Your task to perform on an android device: delete the emails in spam in the gmail app Image 0: 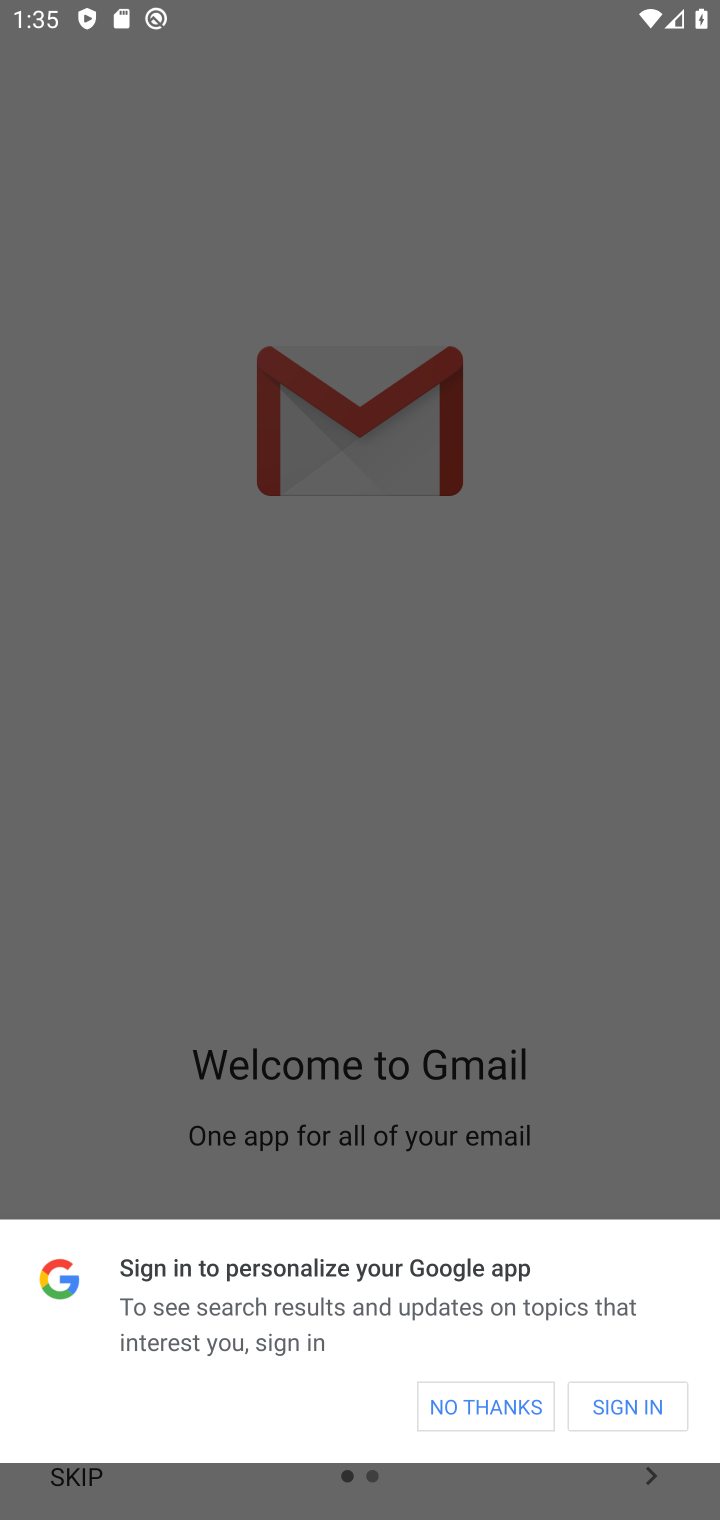
Step 0: click (519, 1400)
Your task to perform on an android device: delete the emails in spam in the gmail app Image 1: 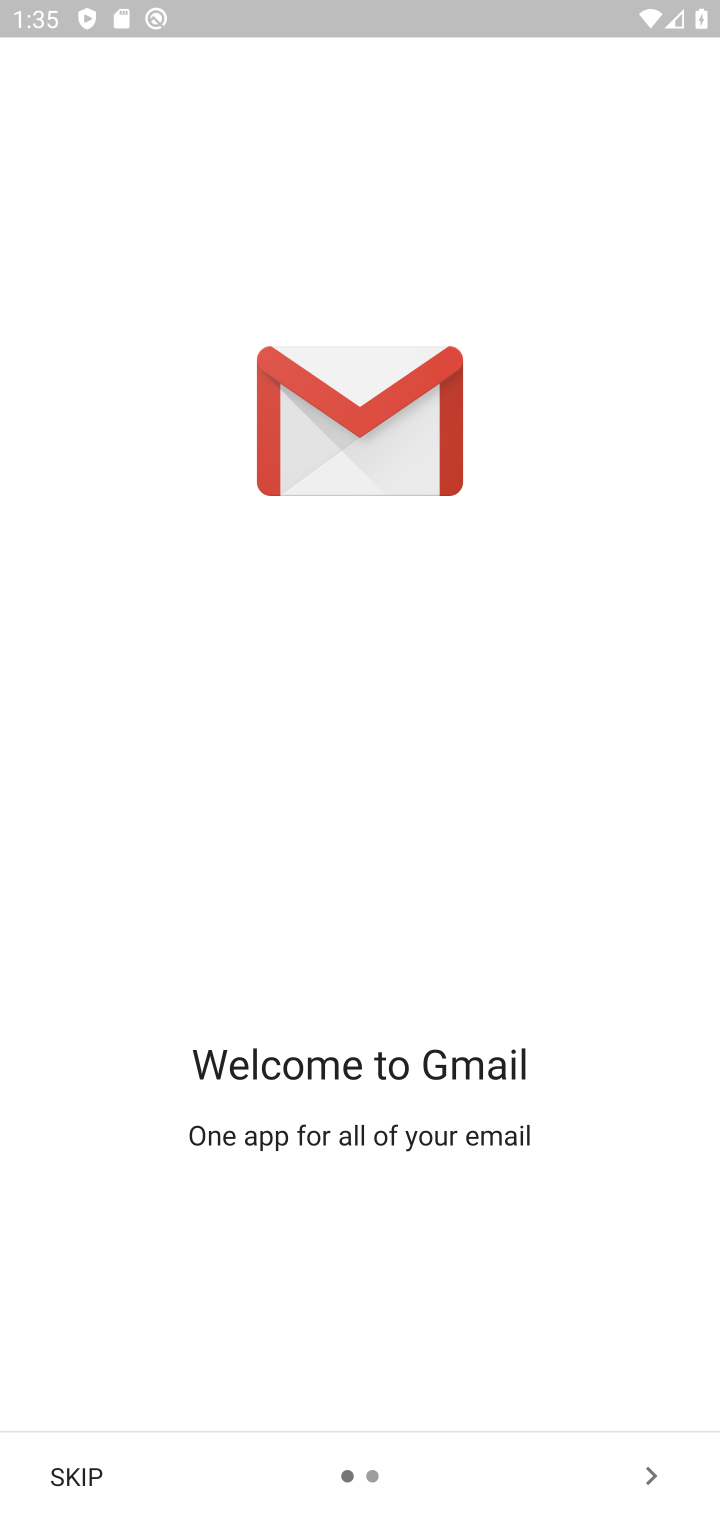
Step 1: click (85, 1490)
Your task to perform on an android device: delete the emails in spam in the gmail app Image 2: 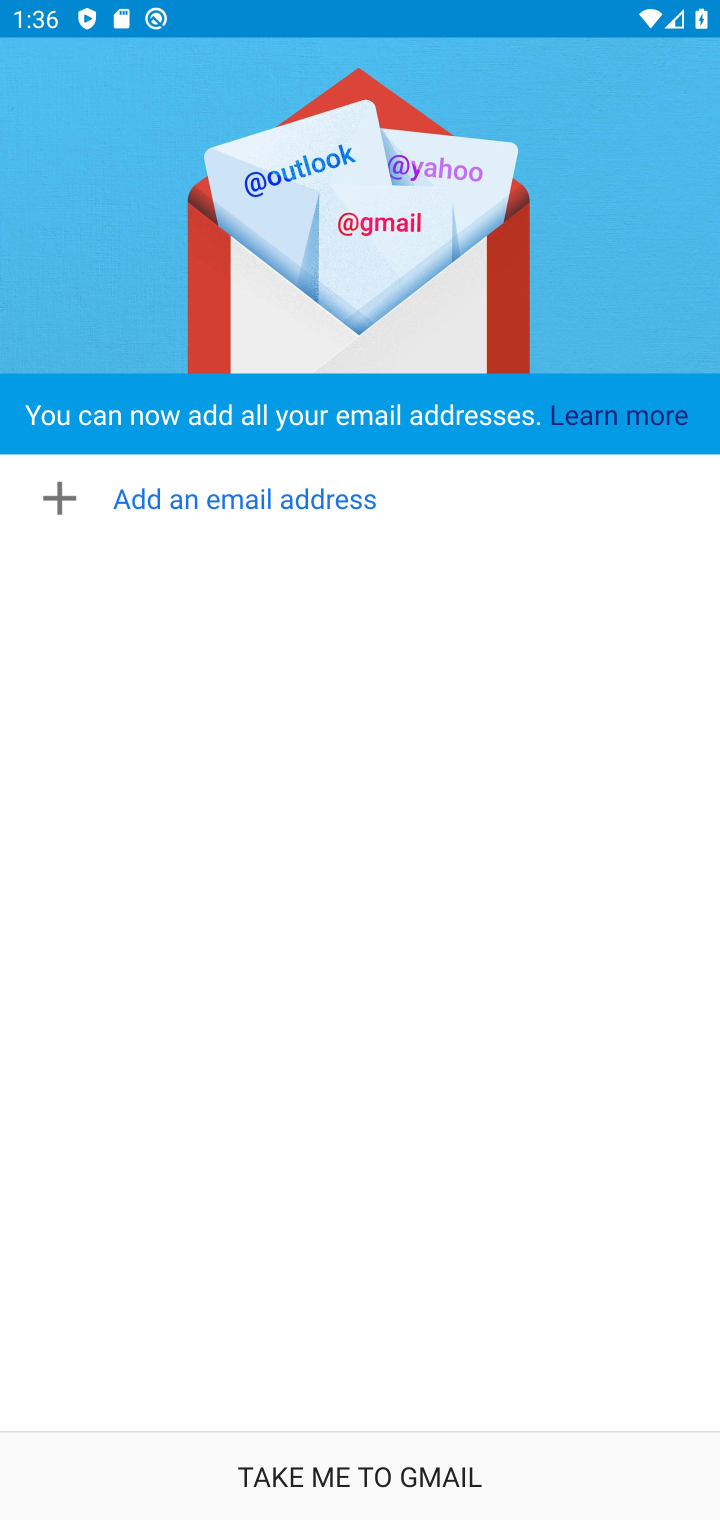
Step 2: click (478, 1464)
Your task to perform on an android device: delete the emails in spam in the gmail app Image 3: 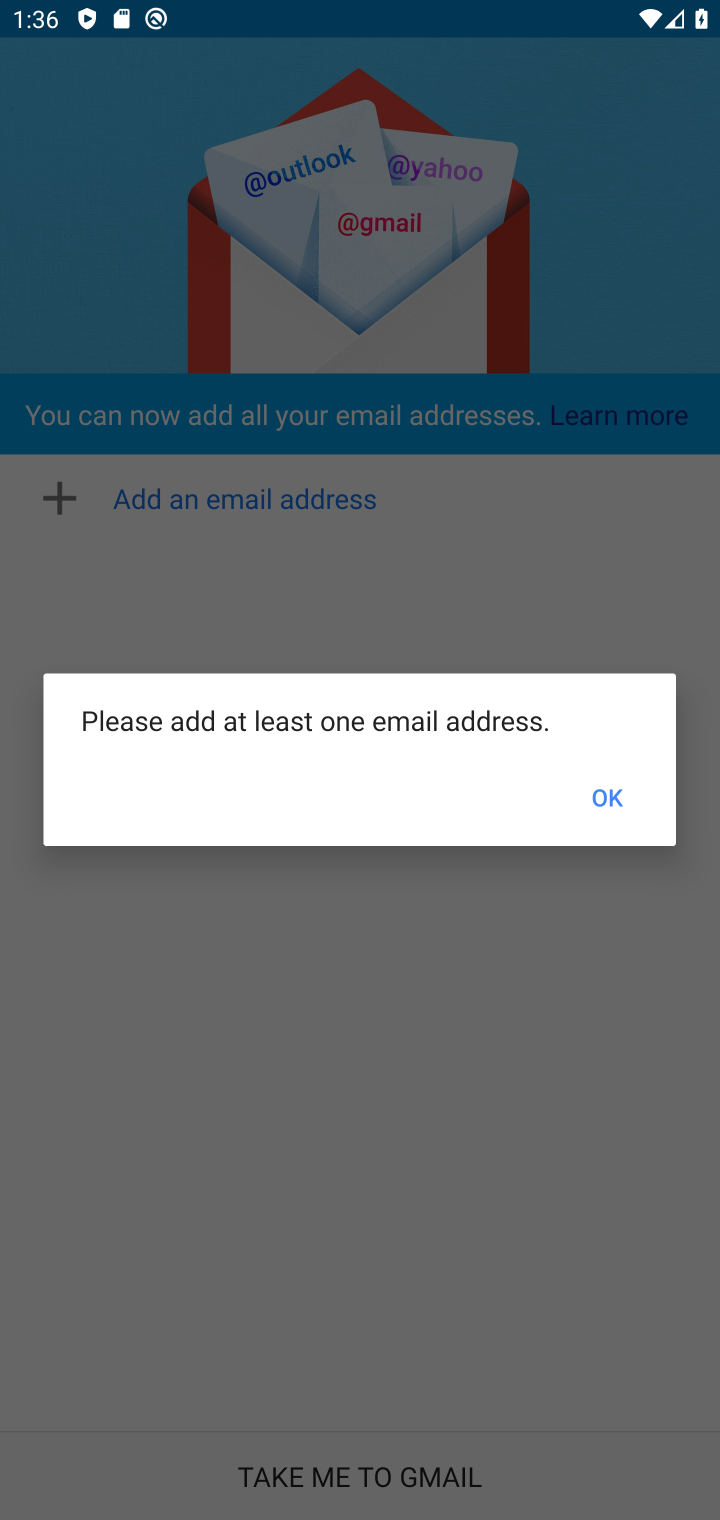
Step 3: task complete